Your task to perform on an android device: Empty the shopping cart on newegg. Image 0: 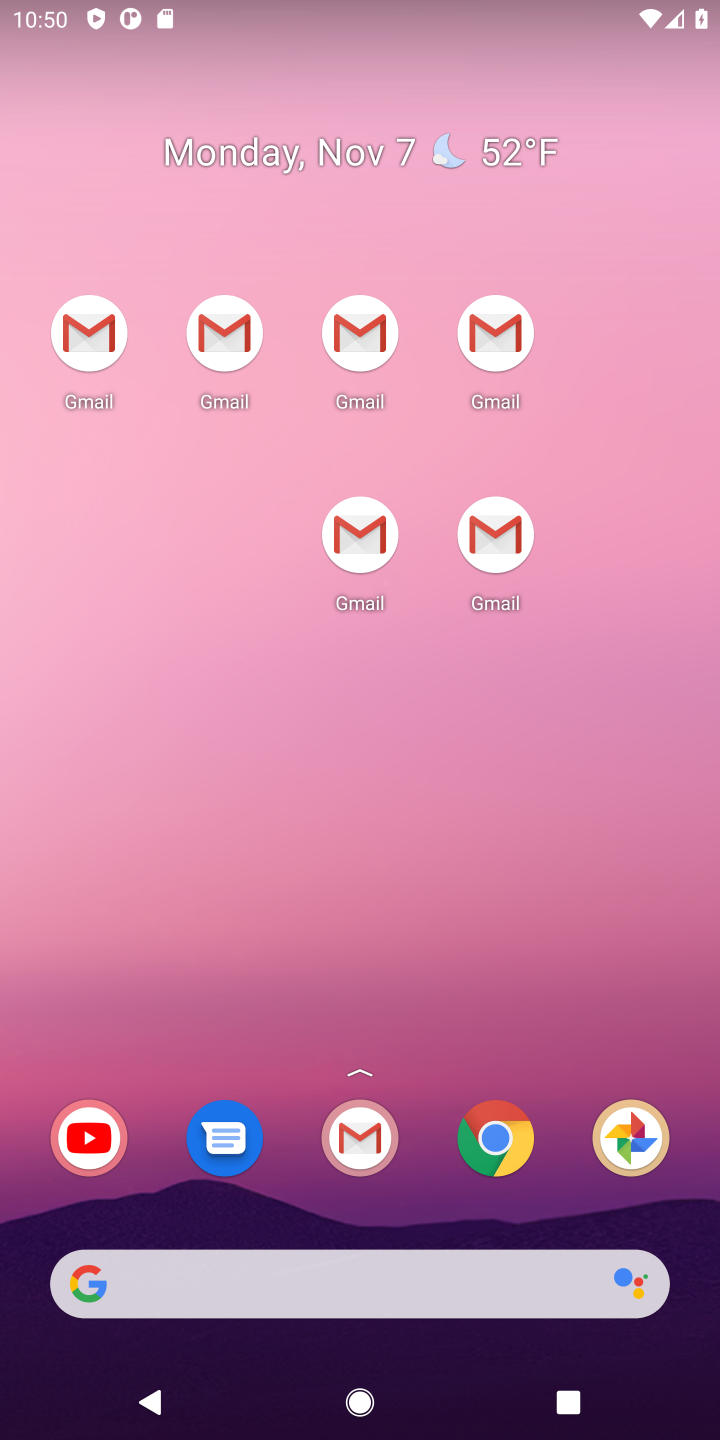
Step 0: drag from (392, 1117) to (480, 472)
Your task to perform on an android device: Empty the shopping cart on newegg. Image 1: 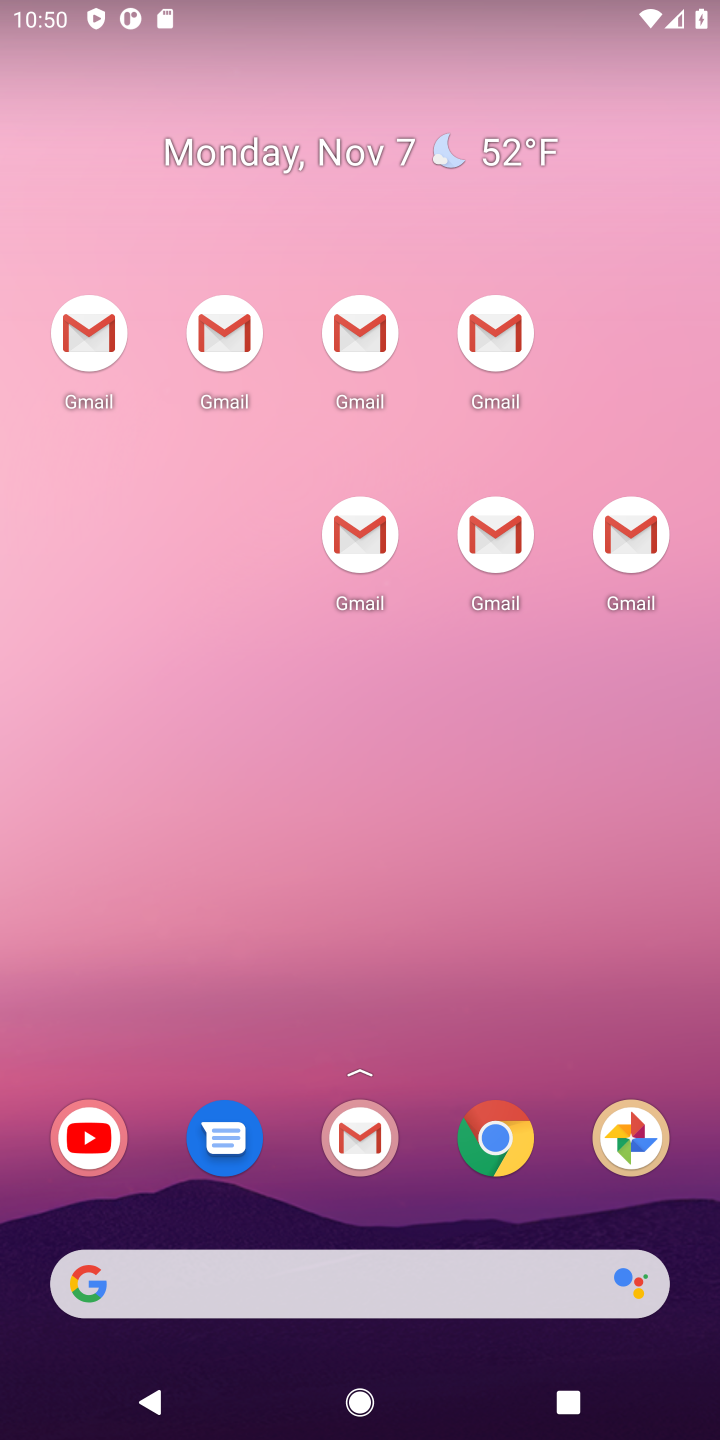
Step 1: drag from (457, 865) to (518, 8)
Your task to perform on an android device: Empty the shopping cart on newegg. Image 2: 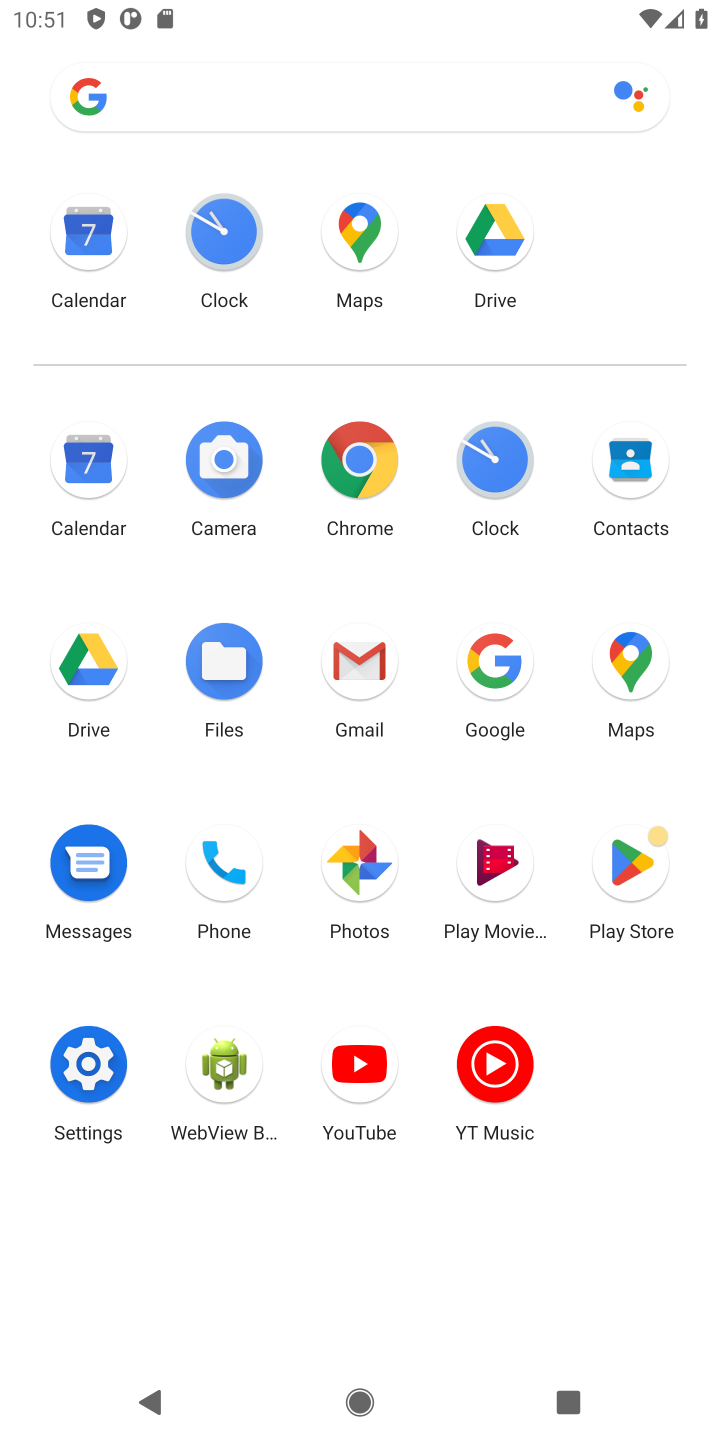
Step 2: click (473, 675)
Your task to perform on an android device: Empty the shopping cart on newegg. Image 3: 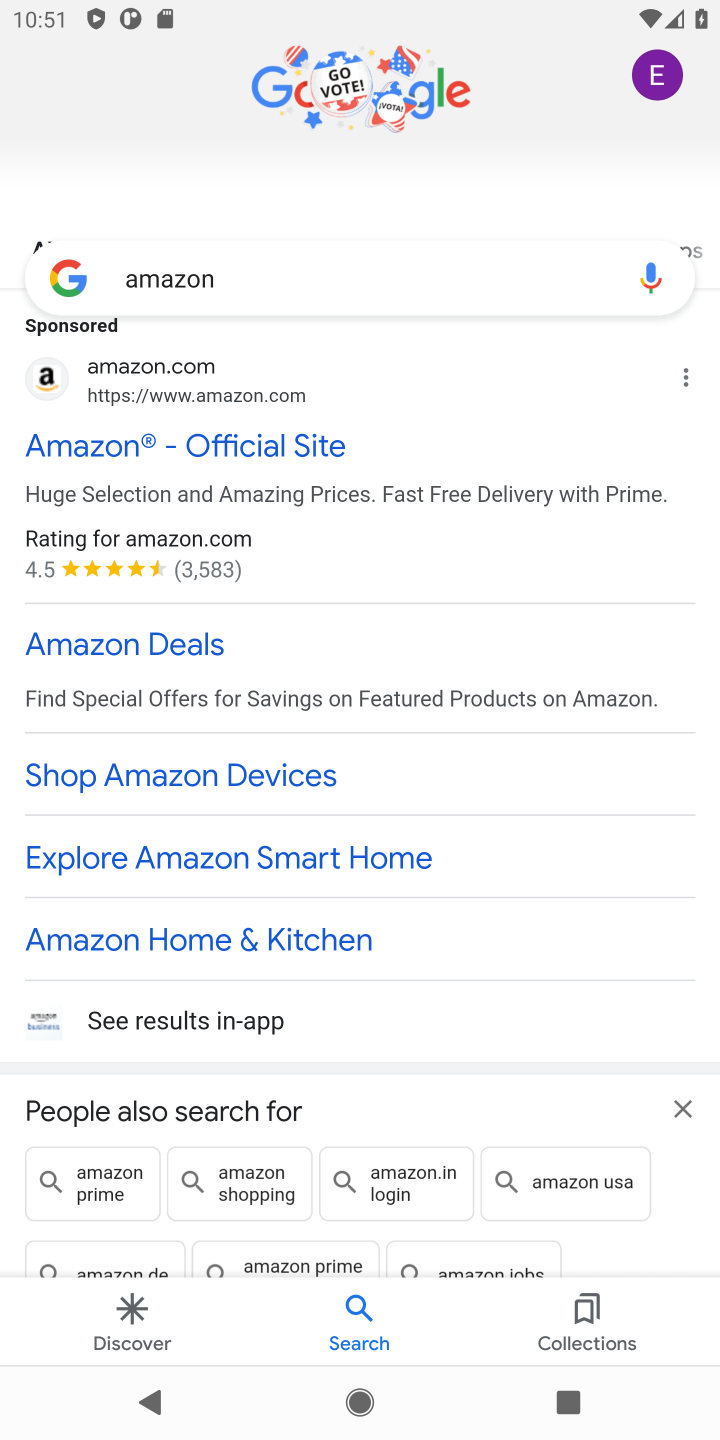
Step 3: click (463, 271)
Your task to perform on an android device: Empty the shopping cart on newegg. Image 4: 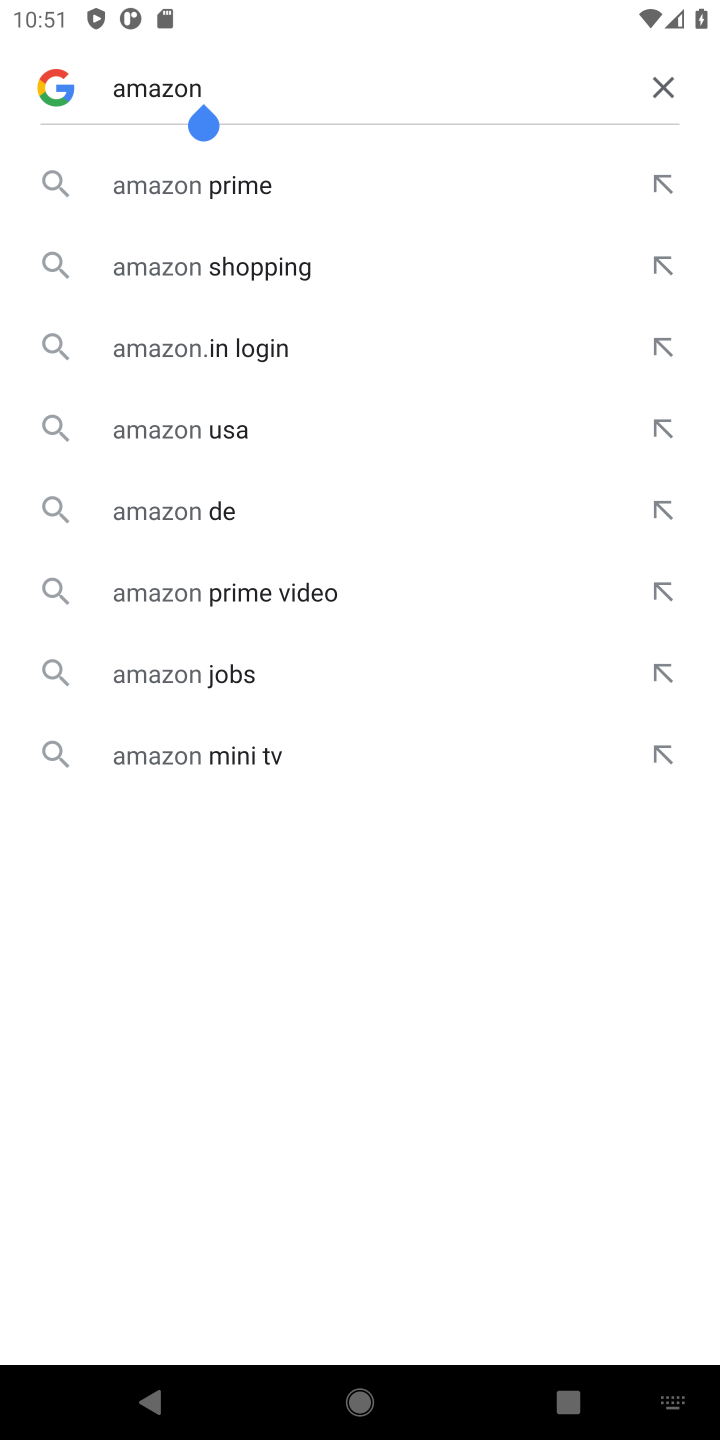
Step 4: click (663, 93)
Your task to perform on an android device: Empty the shopping cart on newegg. Image 5: 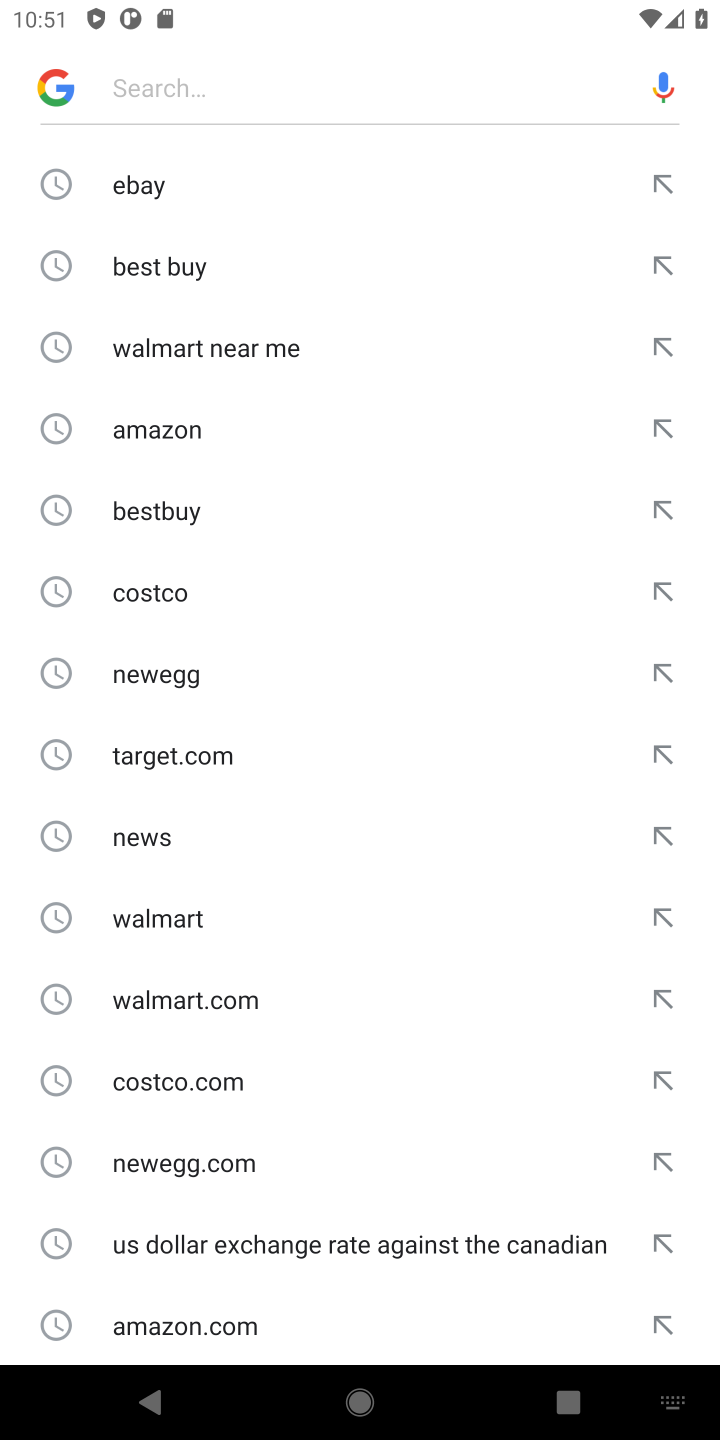
Step 5: type "newegg"
Your task to perform on an android device: Empty the shopping cart on newegg. Image 6: 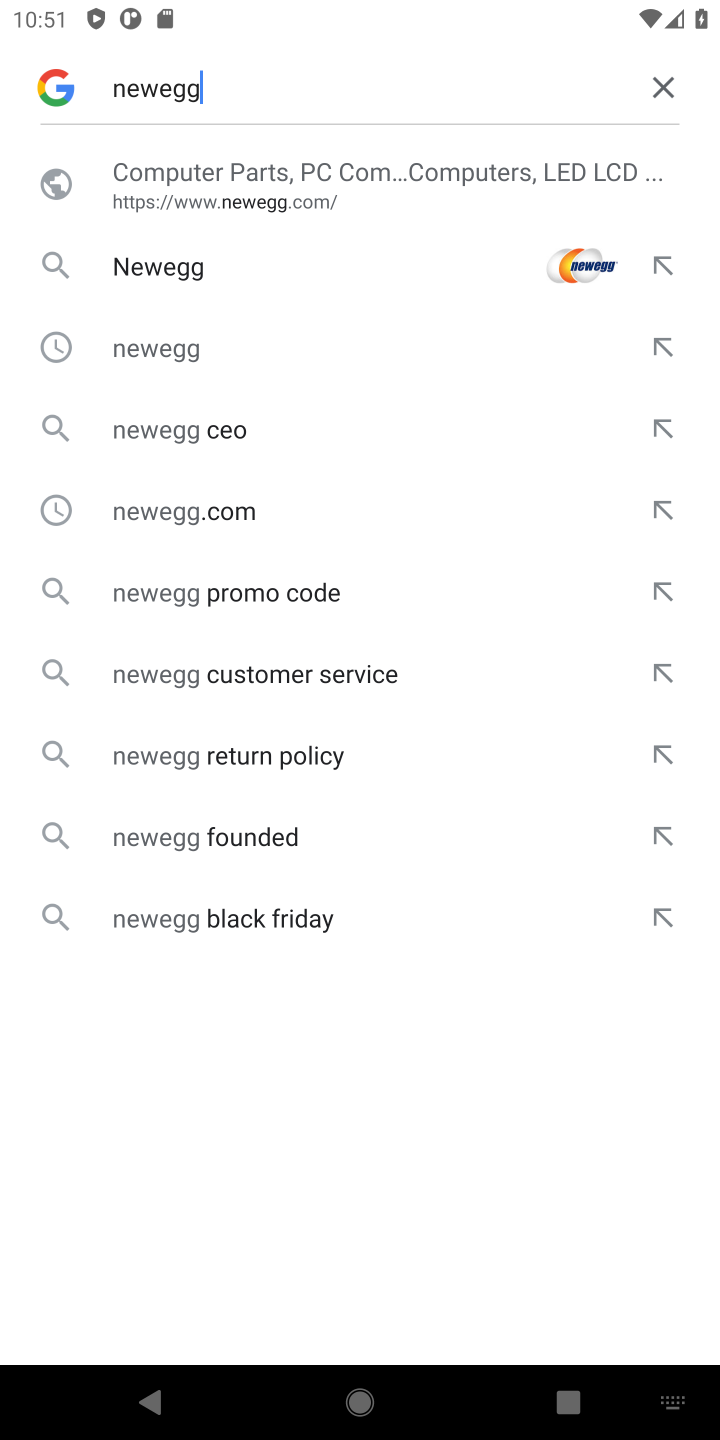
Step 6: click (414, 197)
Your task to perform on an android device: Empty the shopping cart on newegg. Image 7: 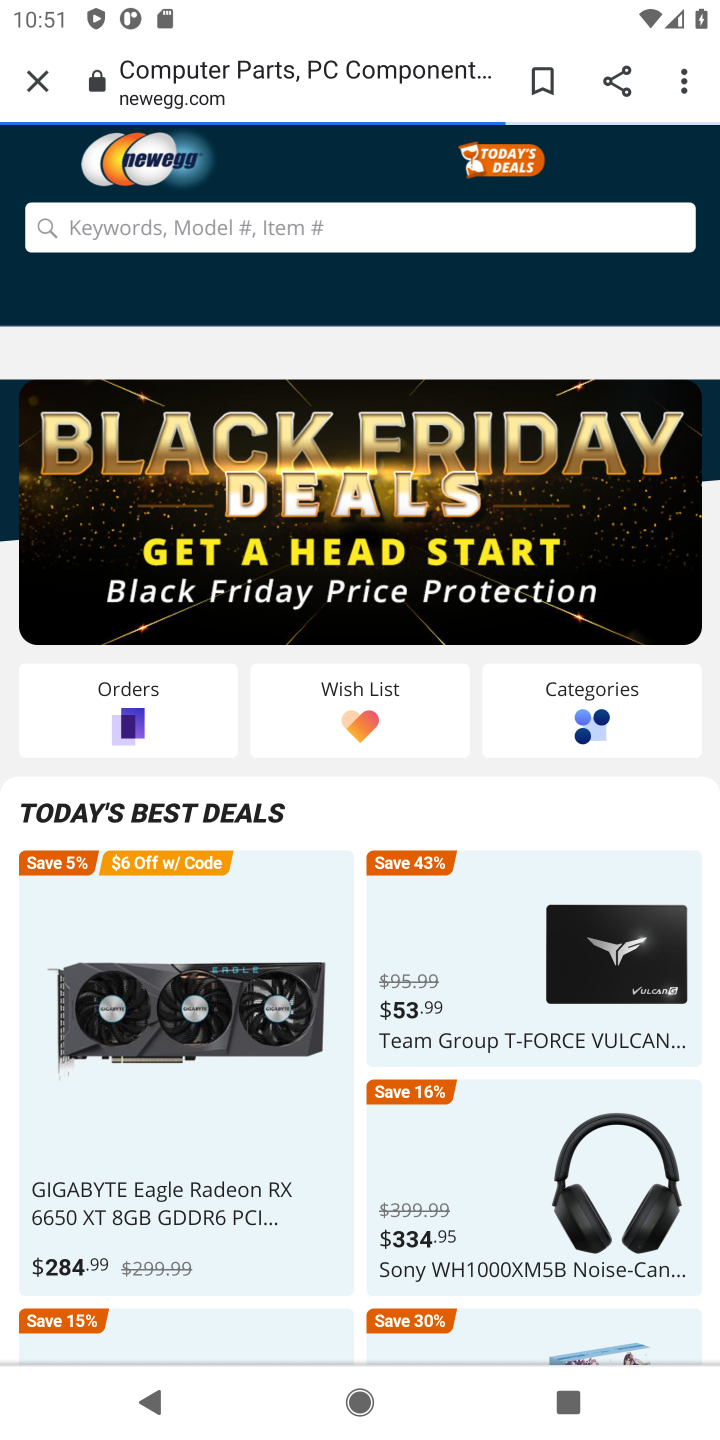
Step 7: click (414, 197)
Your task to perform on an android device: Empty the shopping cart on newegg. Image 8: 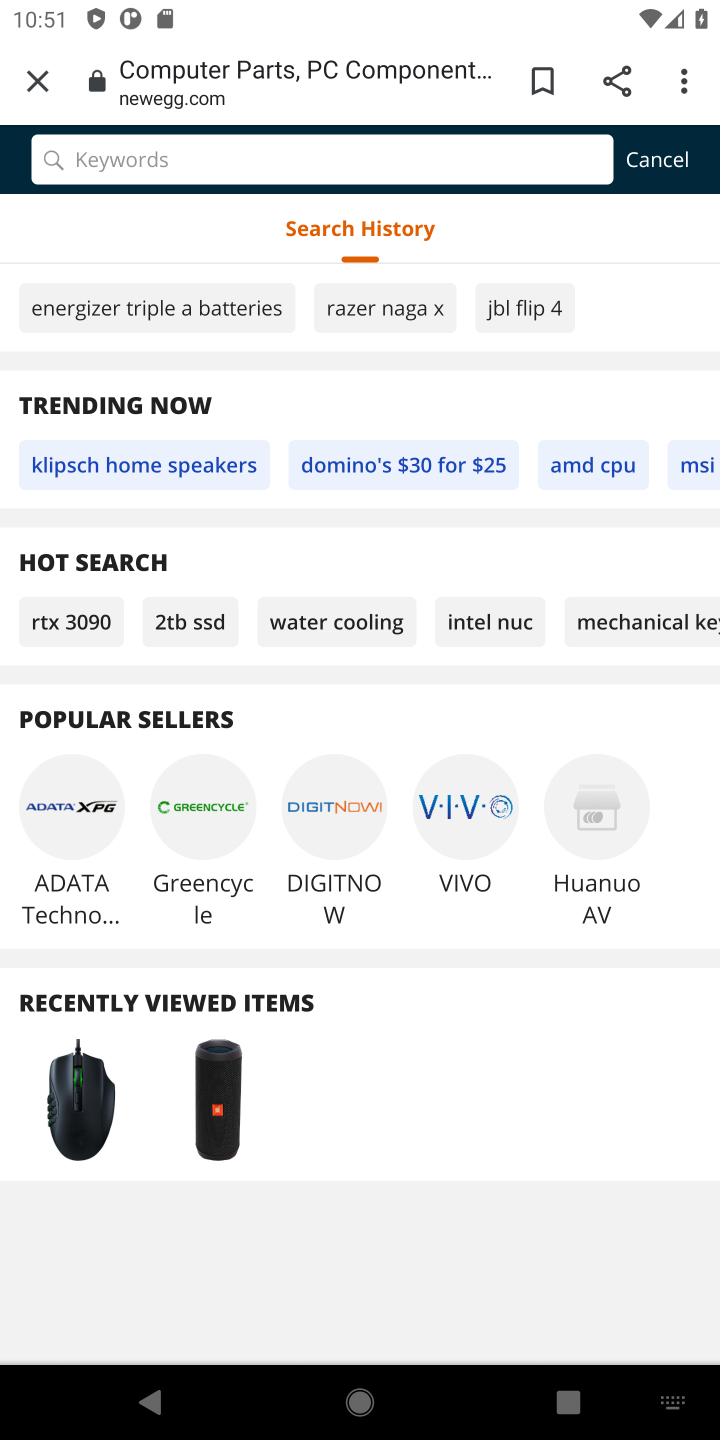
Step 8: click (667, 148)
Your task to perform on an android device: Empty the shopping cart on newegg. Image 9: 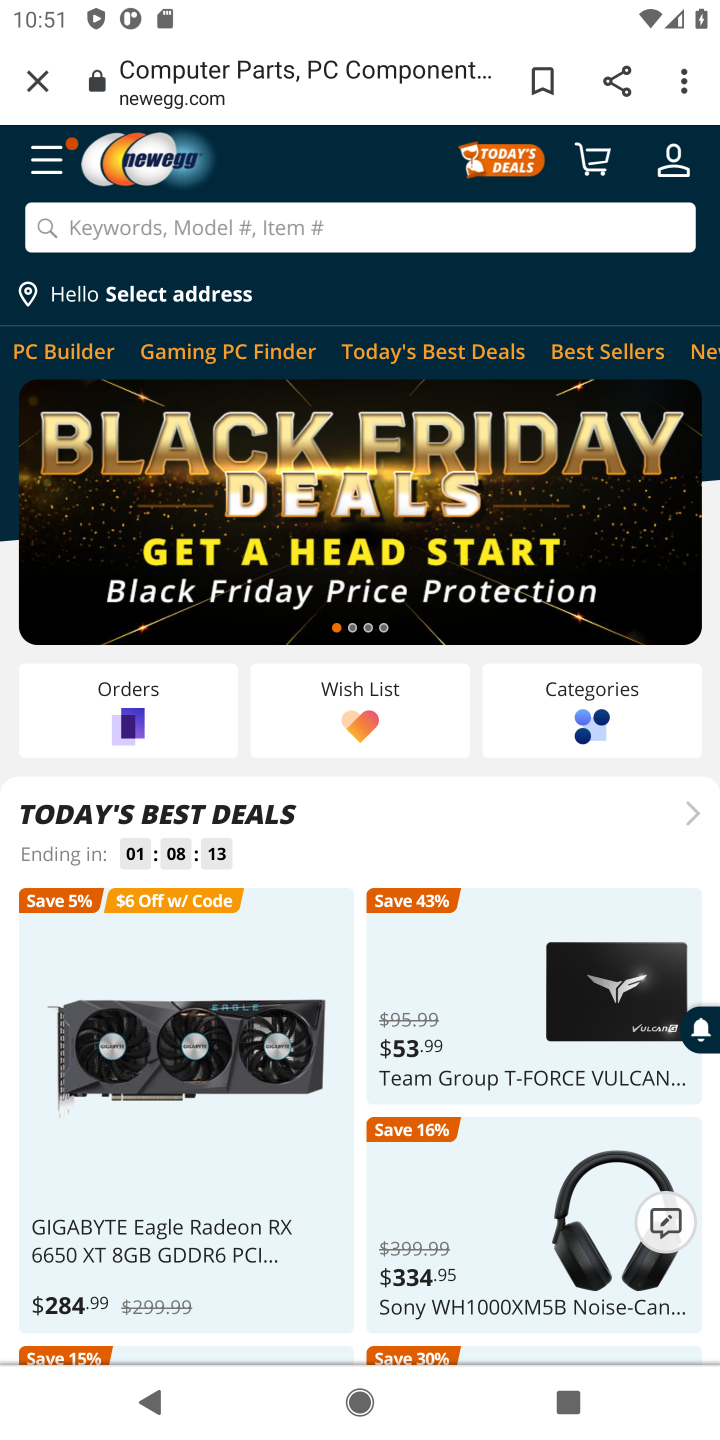
Step 9: click (600, 160)
Your task to perform on an android device: Empty the shopping cart on newegg. Image 10: 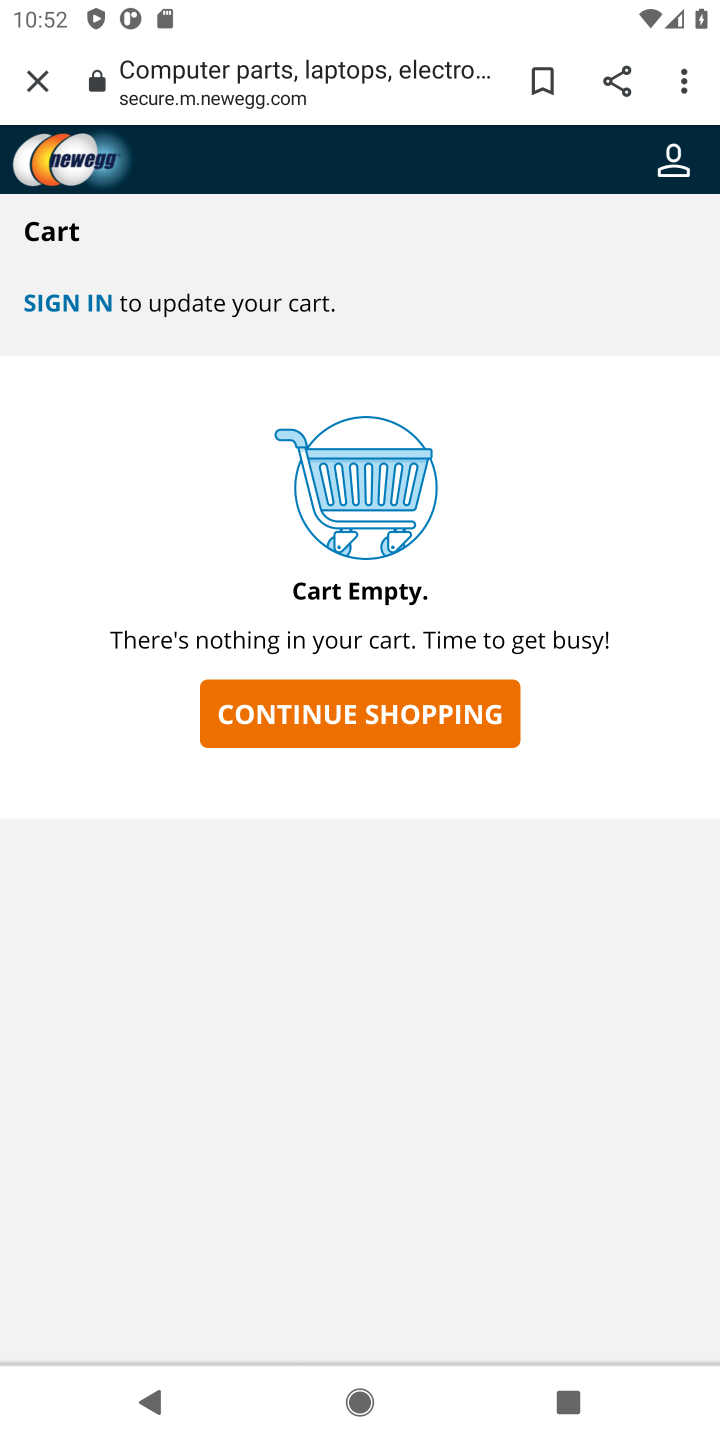
Step 10: task complete